Your task to perform on an android device: turn off smart reply in the gmail app Image 0: 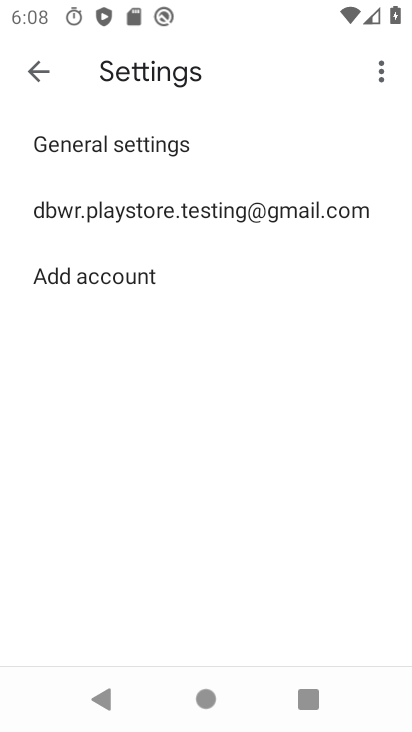
Step 0: click (180, 201)
Your task to perform on an android device: turn off smart reply in the gmail app Image 1: 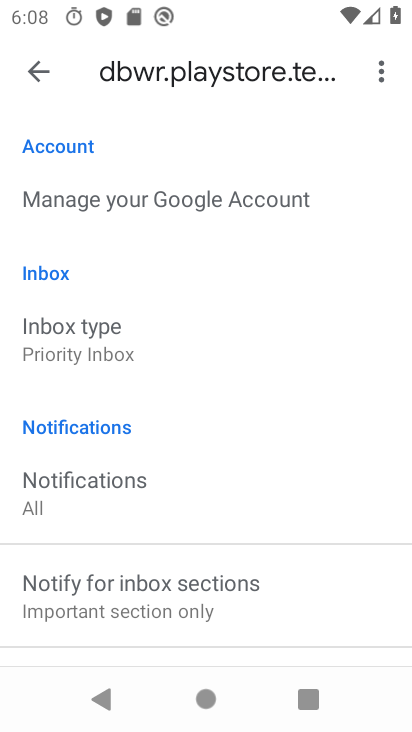
Step 1: drag from (95, 484) to (118, 240)
Your task to perform on an android device: turn off smart reply in the gmail app Image 2: 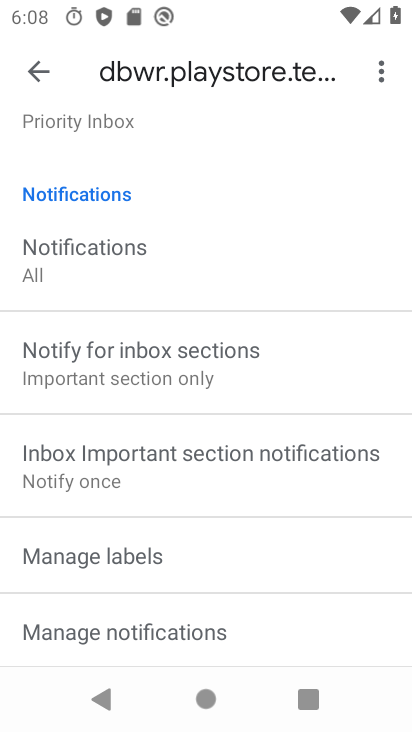
Step 2: drag from (210, 567) to (218, 242)
Your task to perform on an android device: turn off smart reply in the gmail app Image 3: 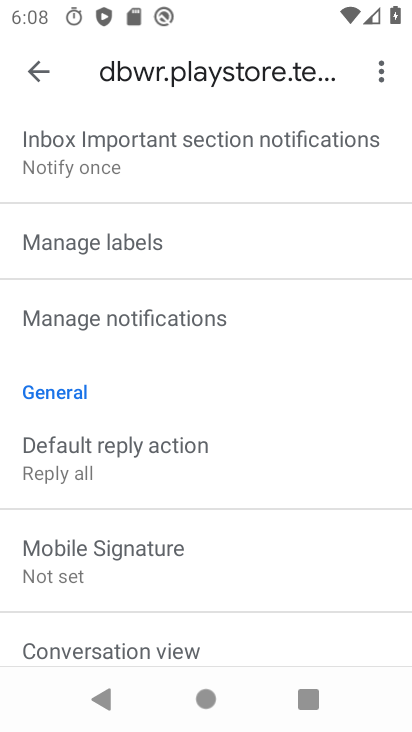
Step 3: drag from (197, 566) to (175, 200)
Your task to perform on an android device: turn off smart reply in the gmail app Image 4: 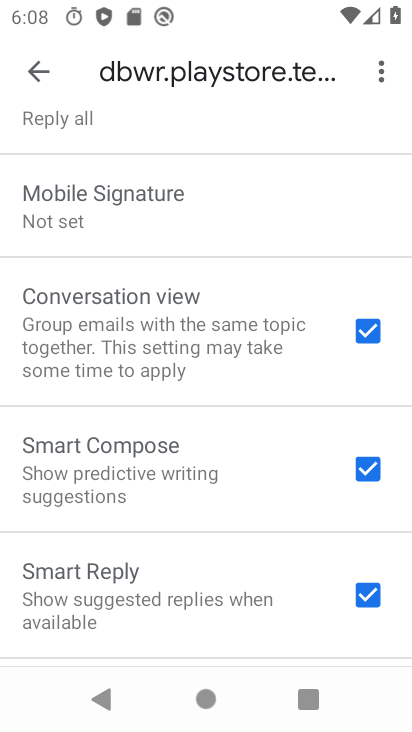
Step 4: click (368, 601)
Your task to perform on an android device: turn off smart reply in the gmail app Image 5: 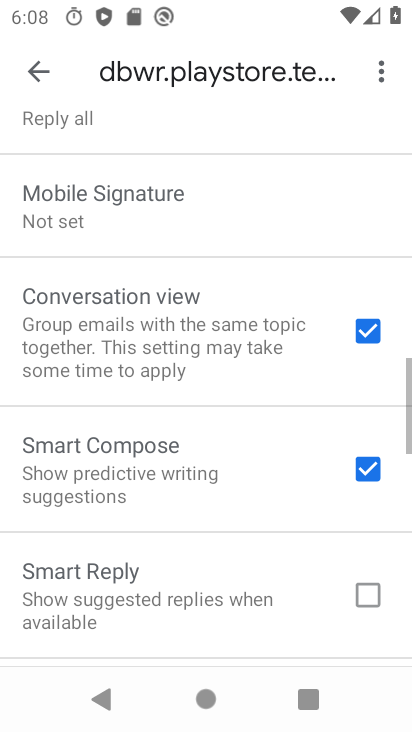
Step 5: task complete